Your task to perform on an android device: change notification settings in the gmail app Image 0: 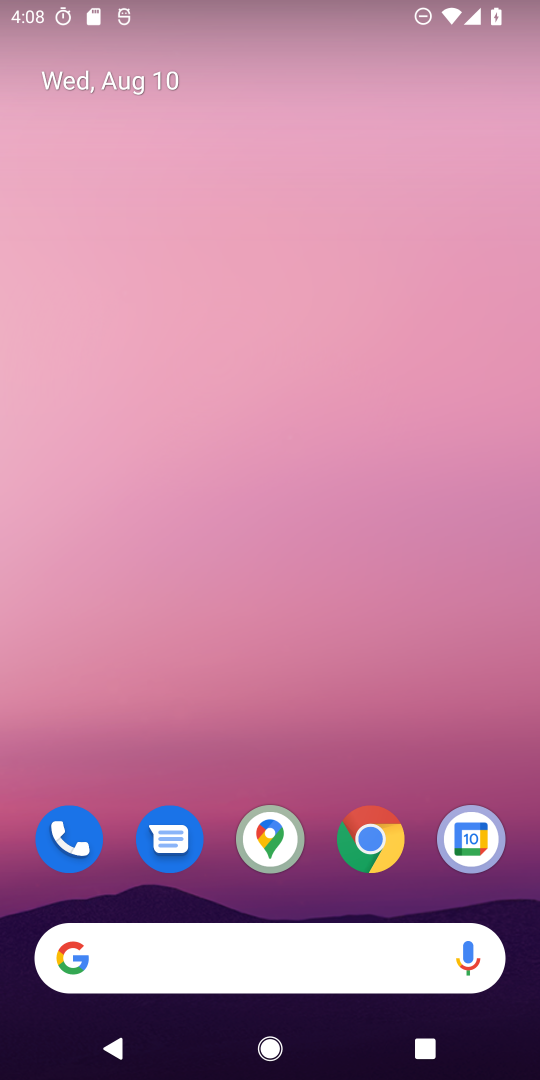
Step 0: drag from (82, 540) to (132, 212)
Your task to perform on an android device: change notification settings in the gmail app Image 1: 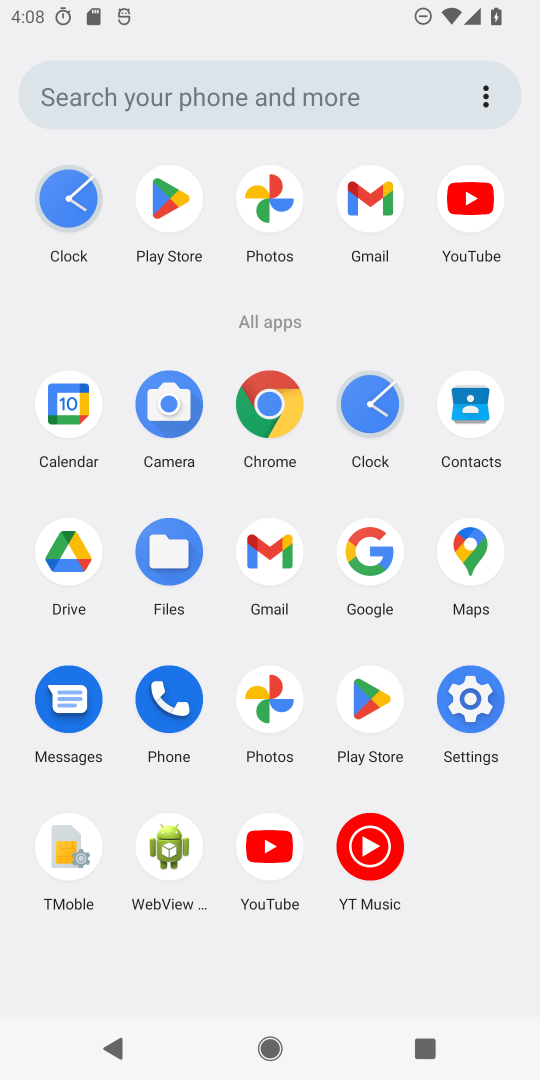
Step 1: click (269, 544)
Your task to perform on an android device: change notification settings in the gmail app Image 2: 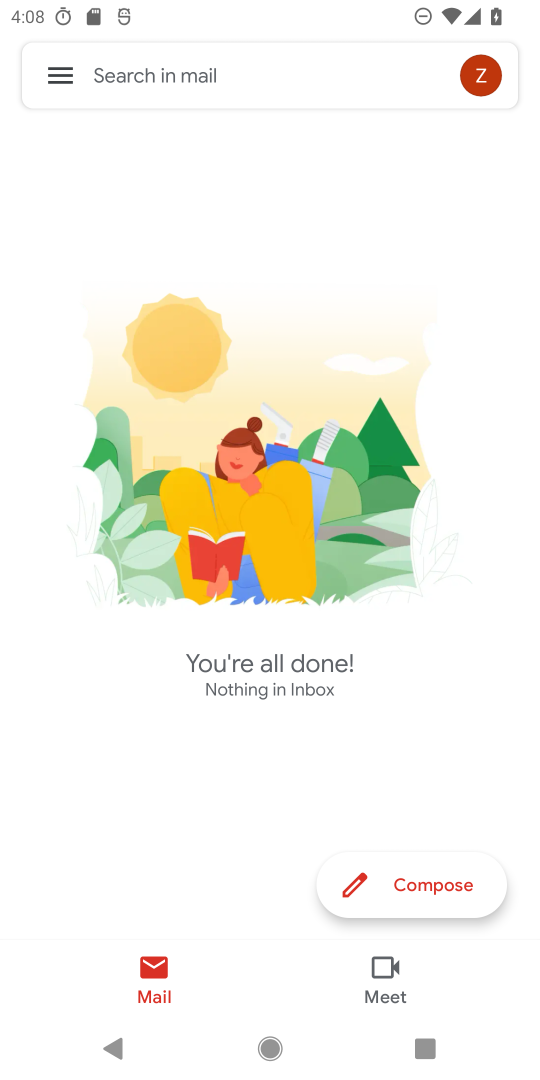
Step 2: click (50, 80)
Your task to perform on an android device: change notification settings in the gmail app Image 3: 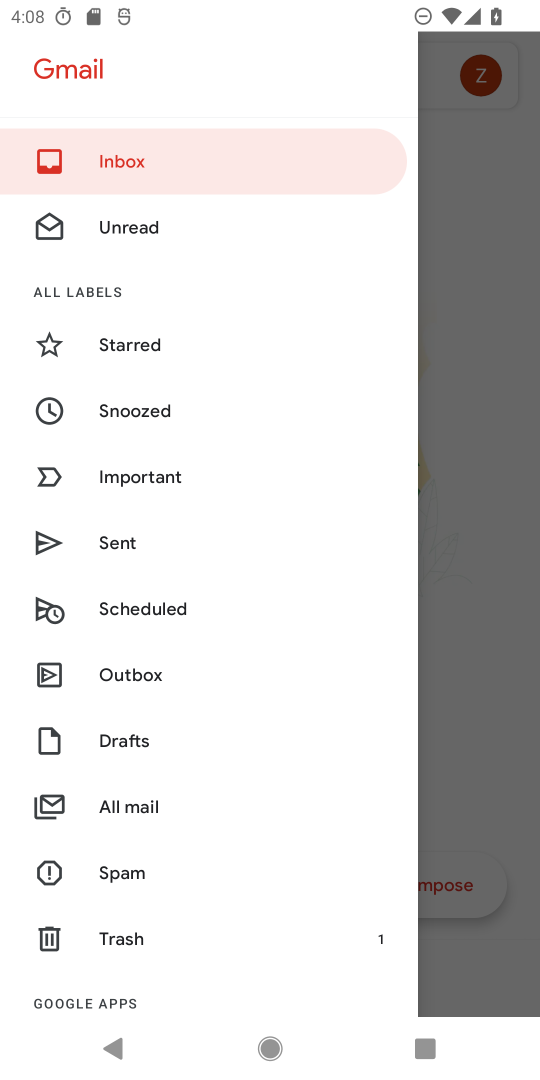
Step 3: drag from (258, 825) to (243, 460)
Your task to perform on an android device: change notification settings in the gmail app Image 4: 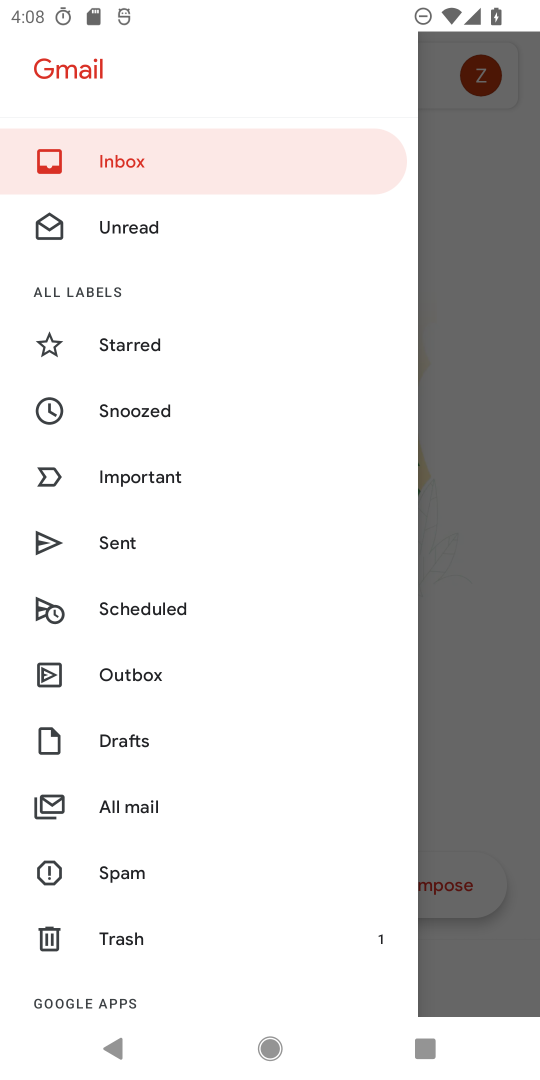
Step 4: drag from (275, 842) to (267, 478)
Your task to perform on an android device: change notification settings in the gmail app Image 5: 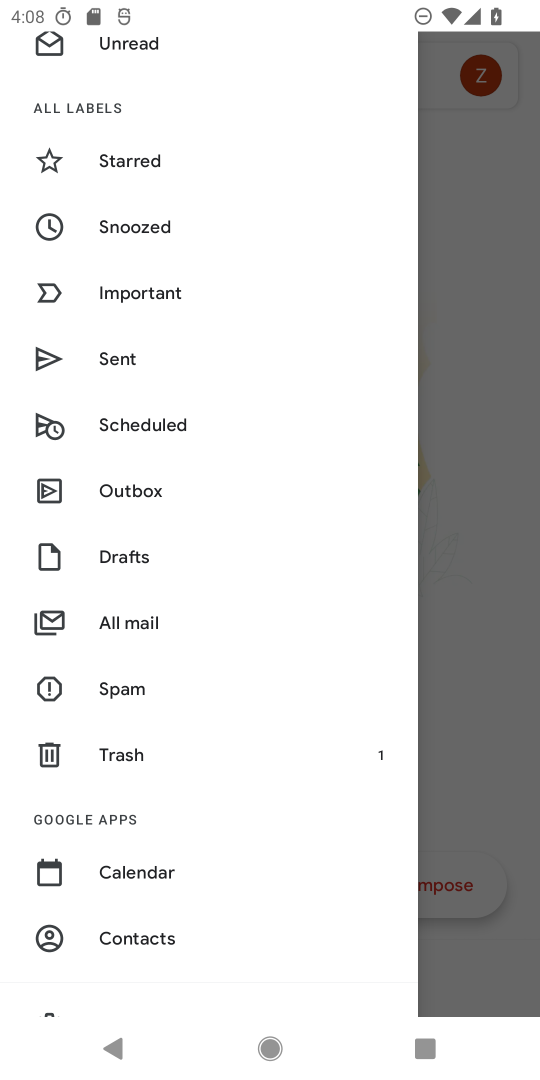
Step 5: drag from (242, 875) to (243, 277)
Your task to perform on an android device: change notification settings in the gmail app Image 6: 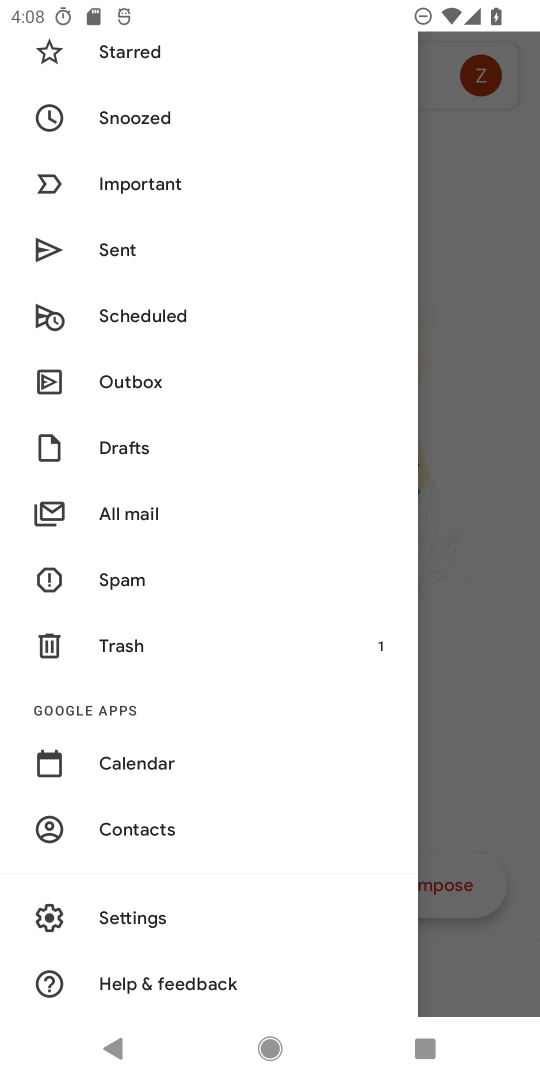
Step 6: click (109, 929)
Your task to perform on an android device: change notification settings in the gmail app Image 7: 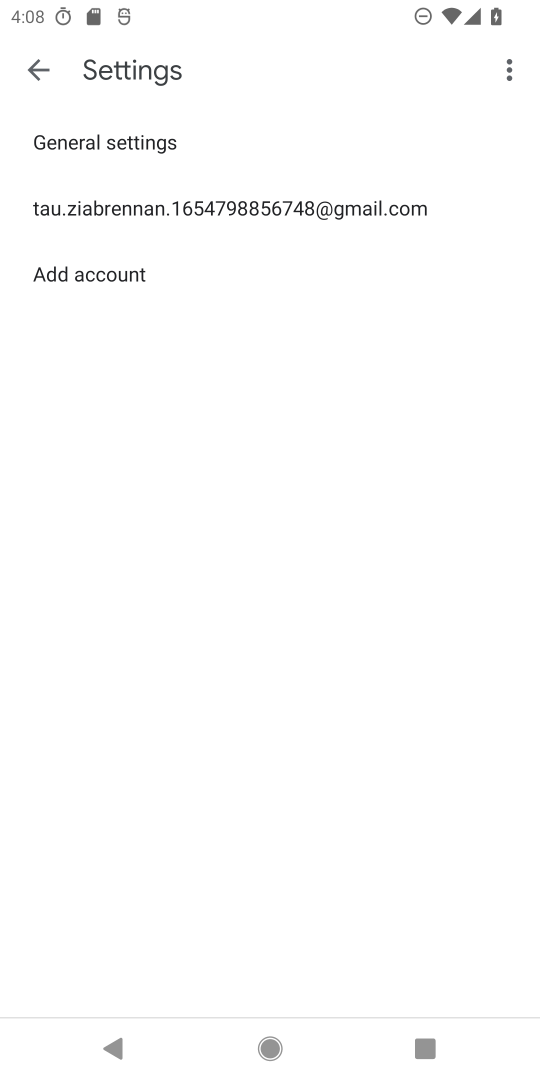
Step 7: click (214, 208)
Your task to perform on an android device: change notification settings in the gmail app Image 8: 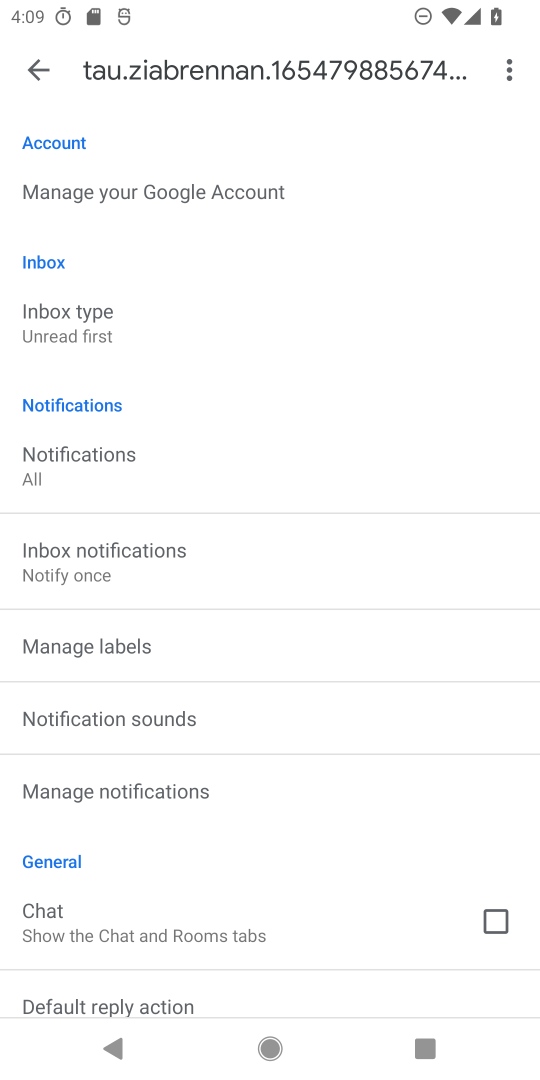
Step 8: click (141, 784)
Your task to perform on an android device: change notification settings in the gmail app Image 9: 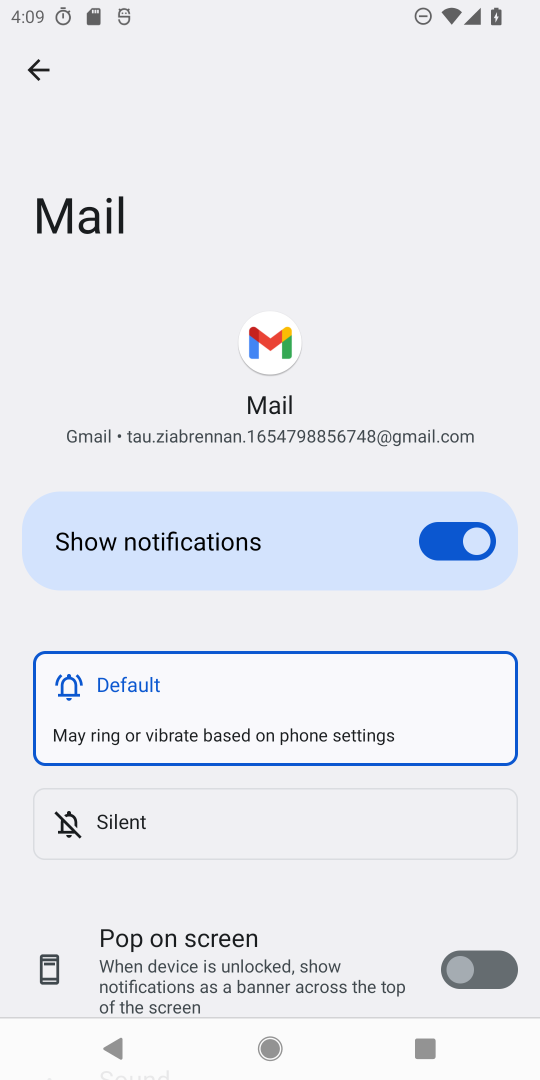
Step 9: click (486, 534)
Your task to perform on an android device: change notification settings in the gmail app Image 10: 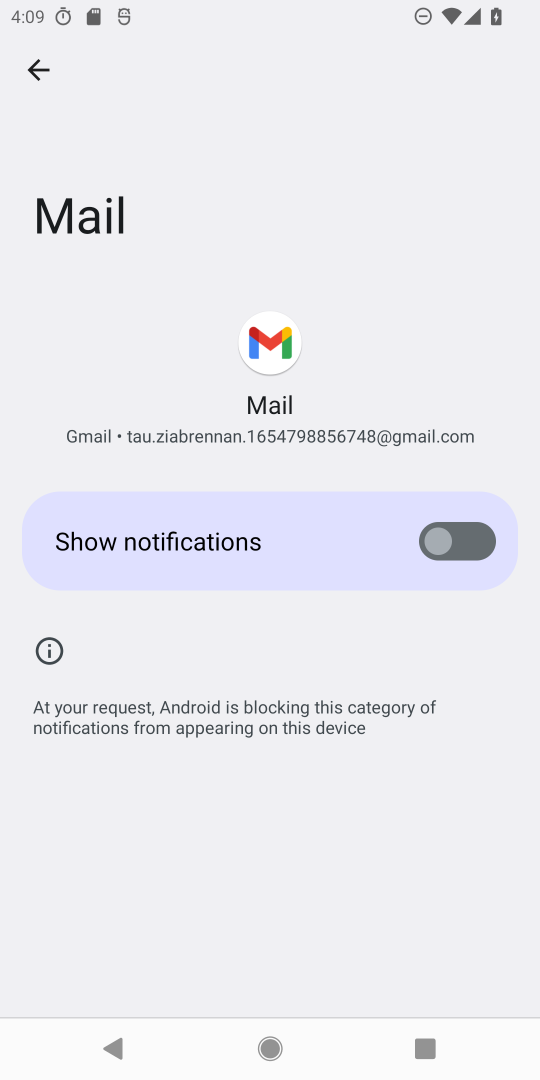
Step 10: task complete